Your task to perform on an android device: What is the news today? Image 0: 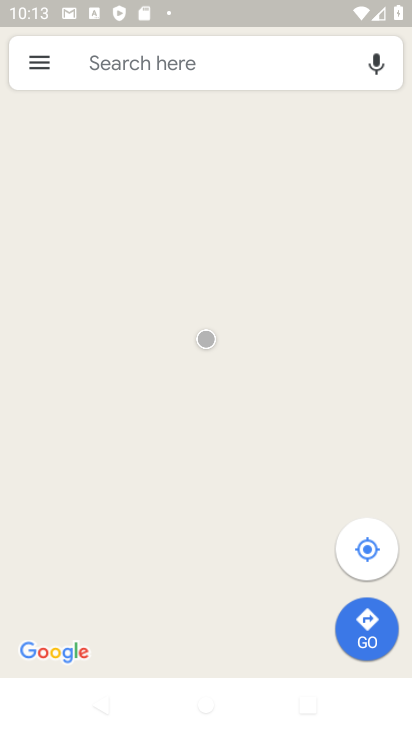
Step 0: press home button
Your task to perform on an android device: What is the news today? Image 1: 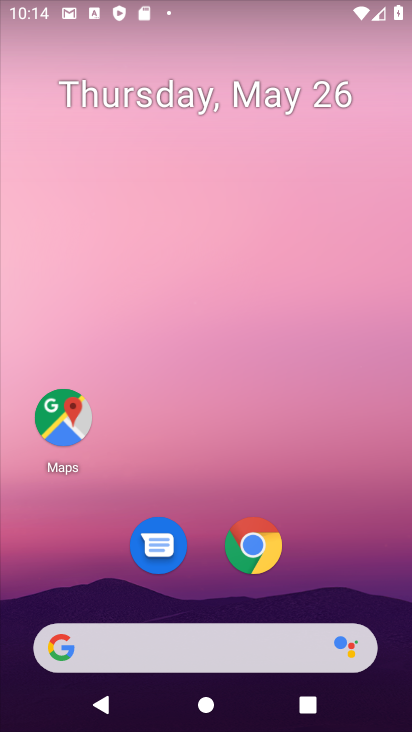
Step 1: click (54, 650)
Your task to perform on an android device: What is the news today? Image 2: 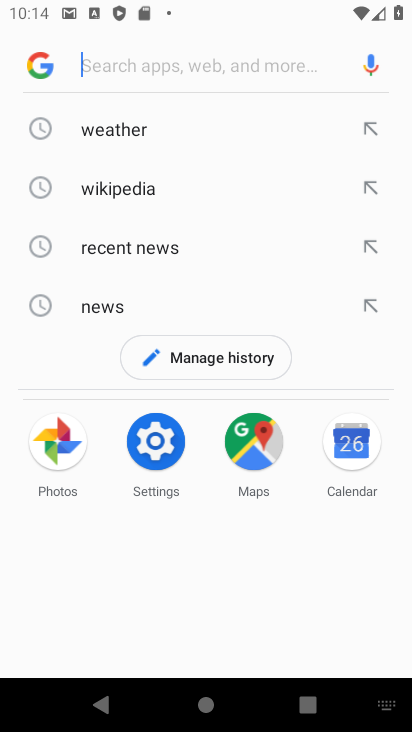
Step 2: type "news today?"
Your task to perform on an android device: What is the news today? Image 3: 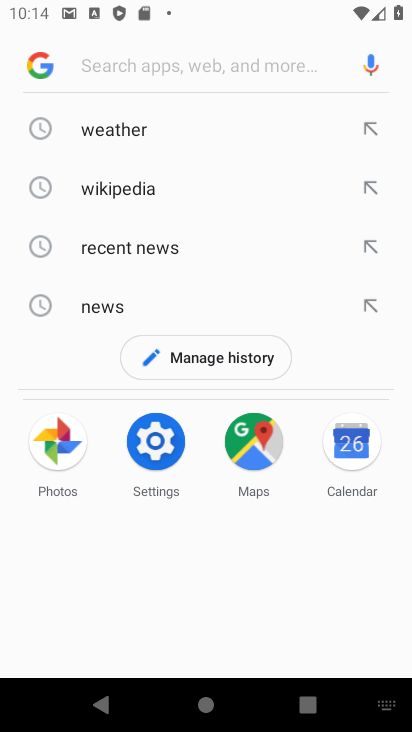
Step 3: click (162, 72)
Your task to perform on an android device: What is the news today? Image 4: 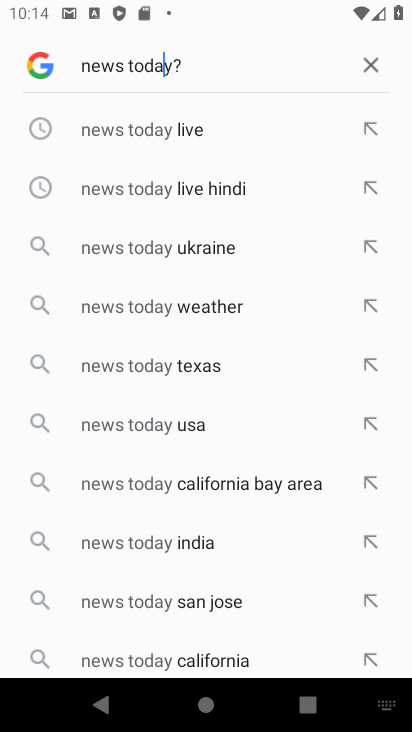
Step 4: click (373, 66)
Your task to perform on an android device: What is the news today? Image 5: 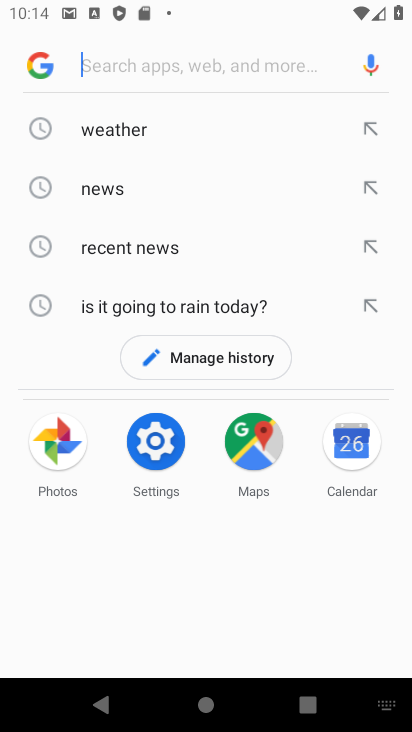
Step 5: type "What is the news today?"
Your task to perform on an android device: What is the news today? Image 6: 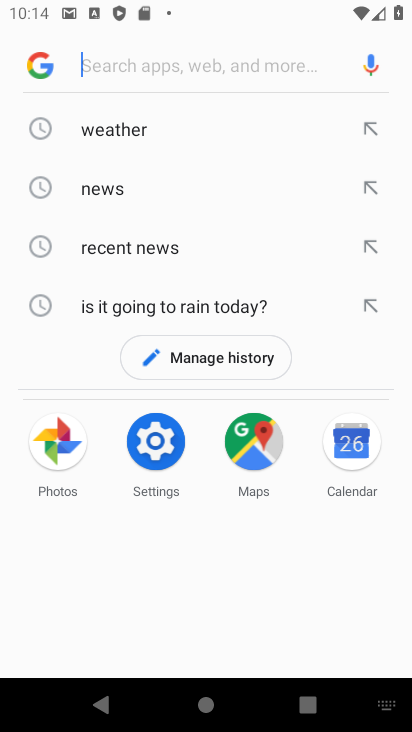
Step 6: click (231, 51)
Your task to perform on an android device: What is the news today? Image 7: 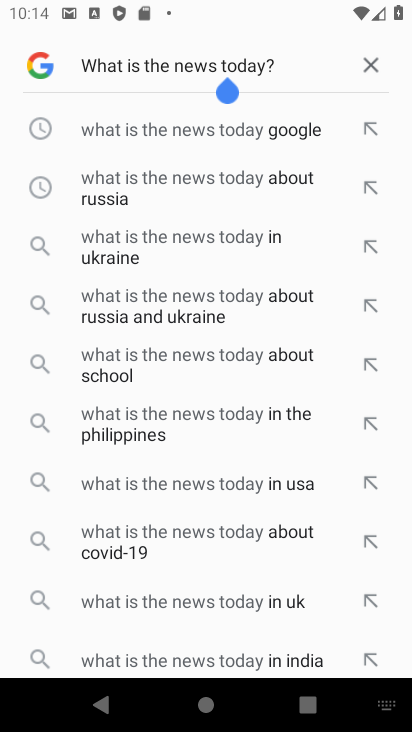
Step 7: click (231, 131)
Your task to perform on an android device: What is the news today? Image 8: 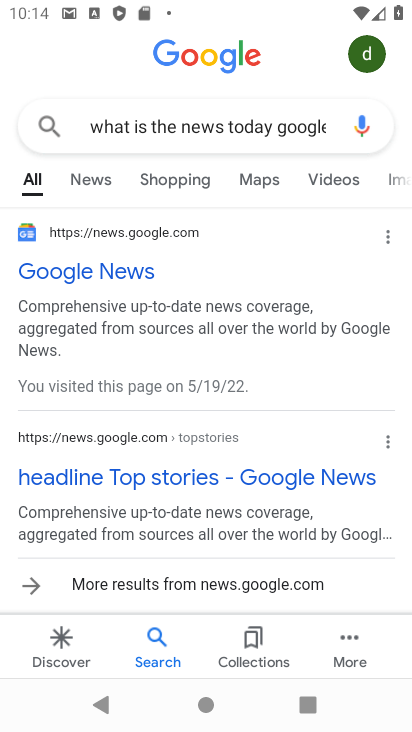
Step 8: task complete